Your task to perform on an android device: Open privacy settings Image 0: 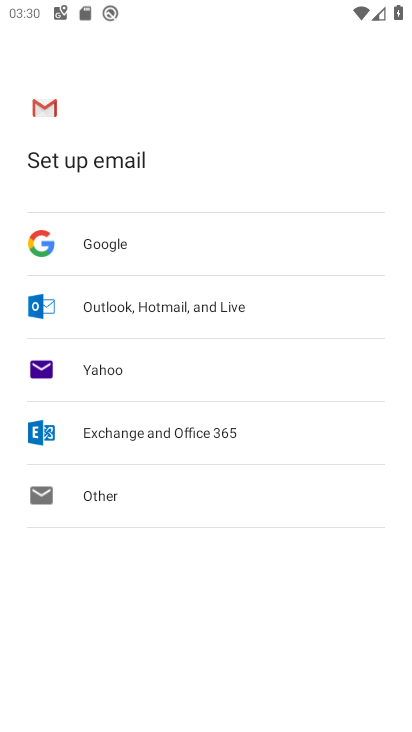
Step 0: drag from (235, 598) to (245, 155)
Your task to perform on an android device: Open privacy settings Image 1: 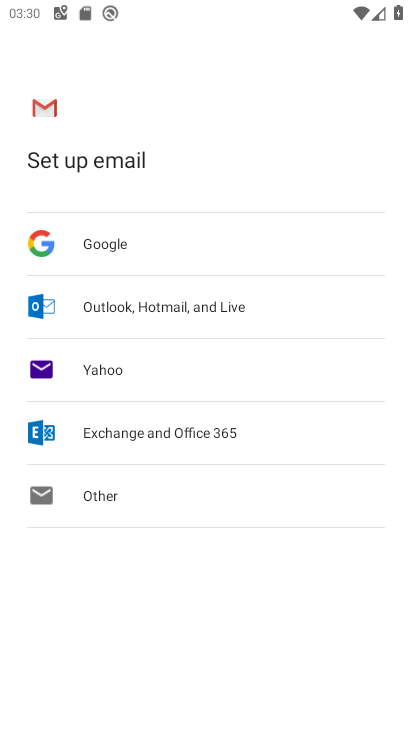
Step 1: press home button
Your task to perform on an android device: Open privacy settings Image 2: 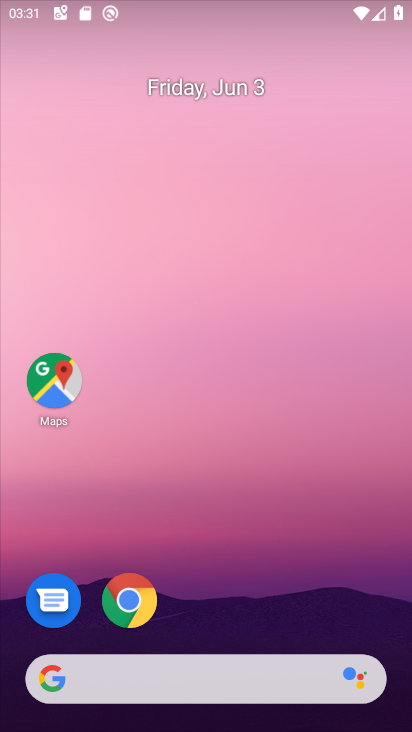
Step 2: drag from (333, 519) to (347, 148)
Your task to perform on an android device: Open privacy settings Image 3: 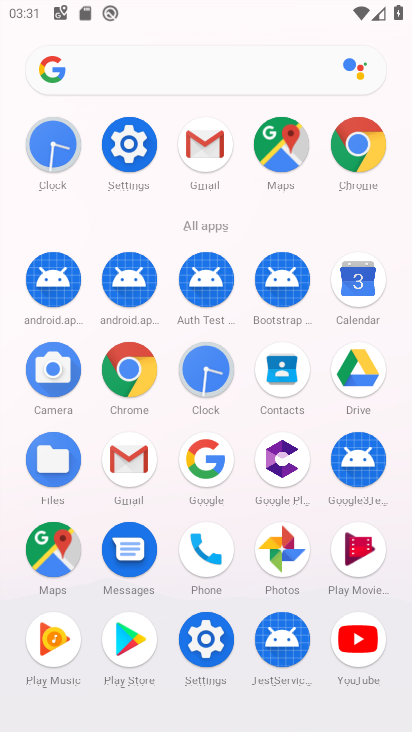
Step 3: click (148, 163)
Your task to perform on an android device: Open privacy settings Image 4: 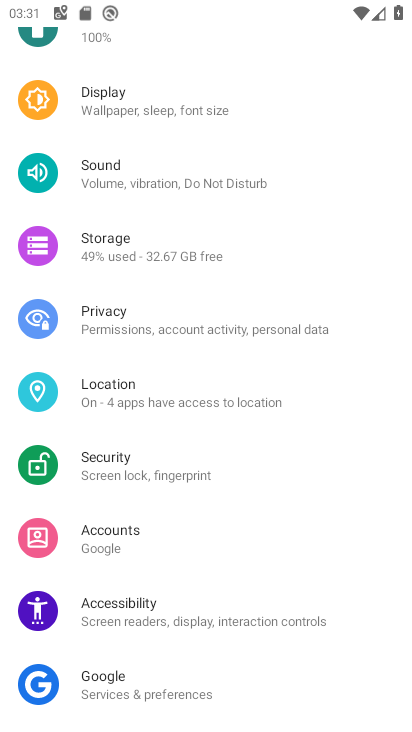
Step 4: drag from (231, 145) to (245, 568)
Your task to perform on an android device: Open privacy settings Image 5: 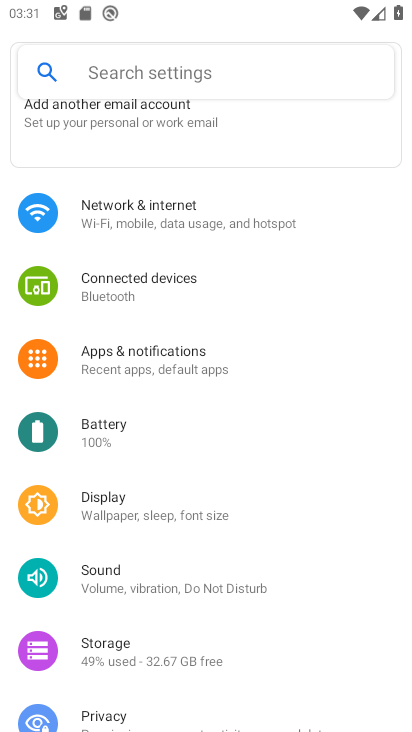
Step 5: click (110, 728)
Your task to perform on an android device: Open privacy settings Image 6: 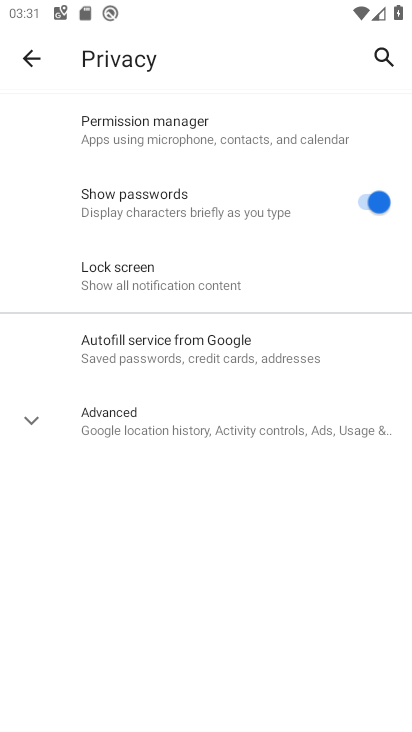
Step 6: task complete